Your task to perform on an android device: What is the capital of Germany? Image 0: 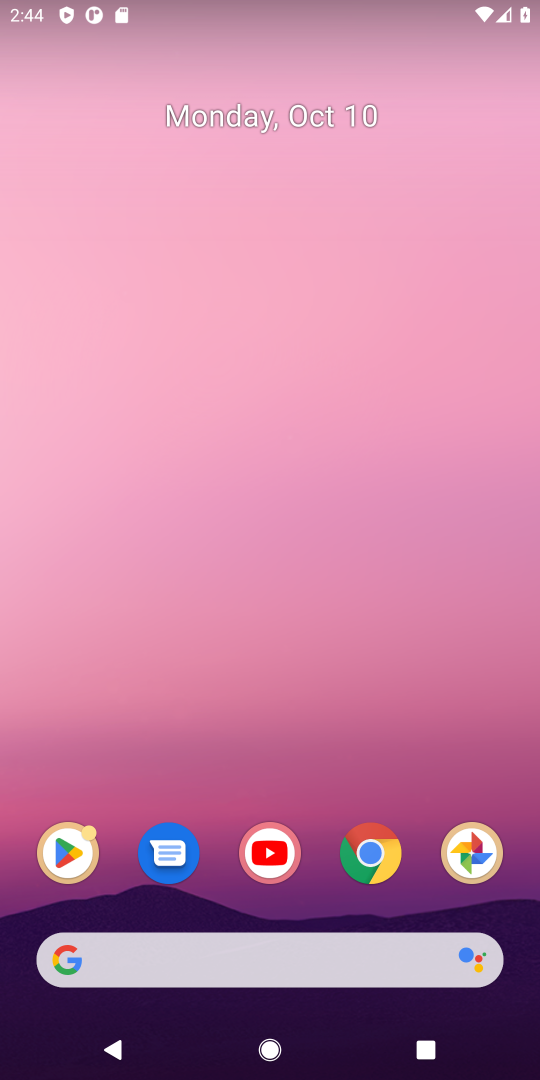
Step 0: click (367, 855)
Your task to perform on an android device: What is the capital of Germany? Image 1: 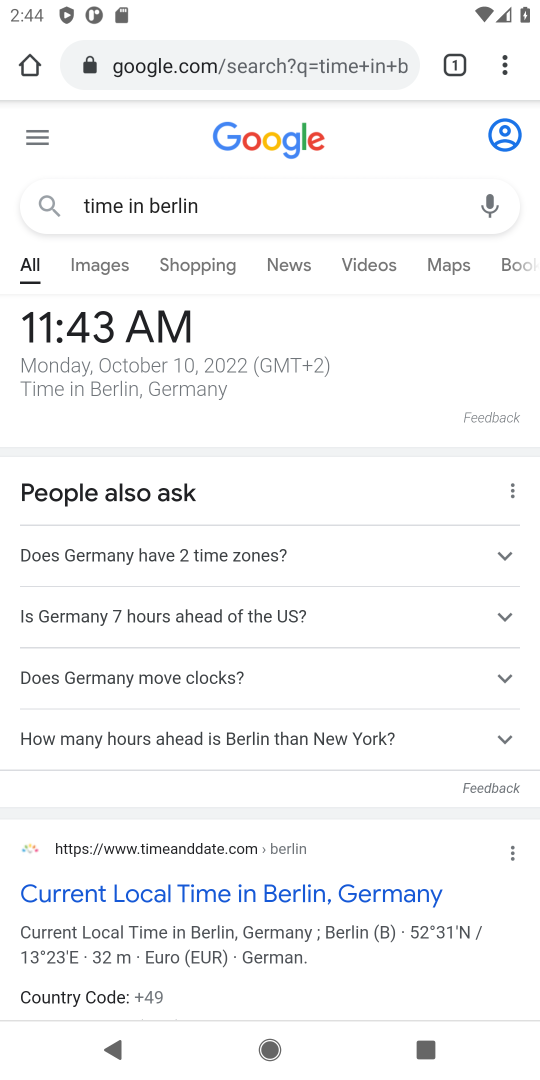
Step 1: click (236, 75)
Your task to perform on an android device: What is the capital of Germany? Image 2: 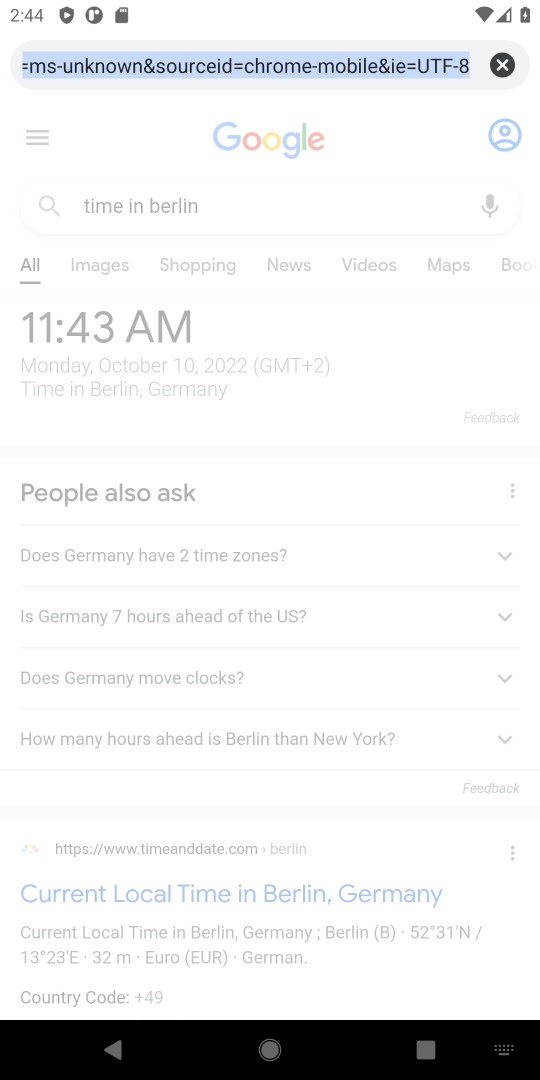
Step 2: type "capital of germany"
Your task to perform on an android device: What is the capital of Germany? Image 3: 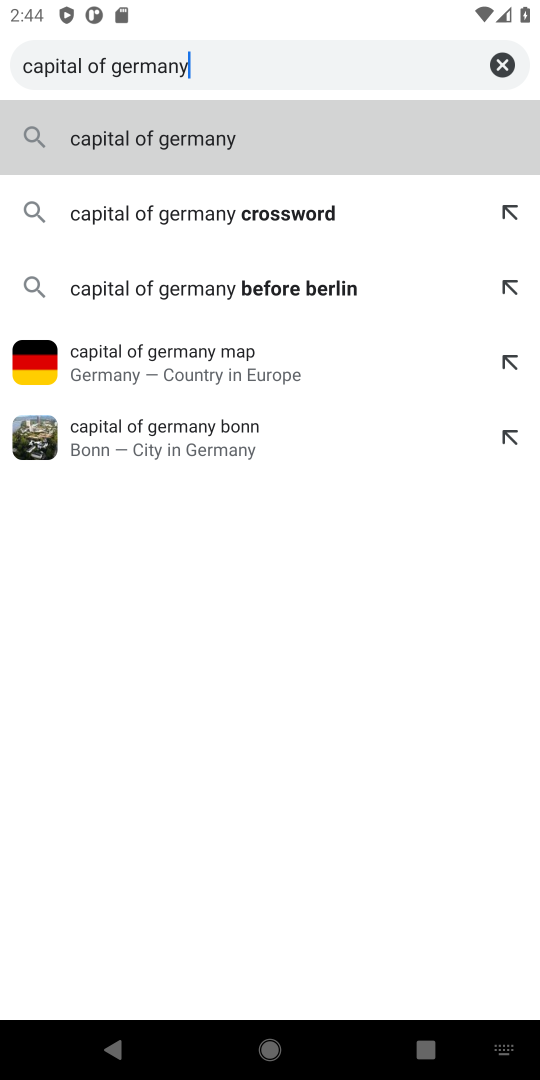
Step 3: click (263, 125)
Your task to perform on an android device: What is the capital of Germany? Image 4: 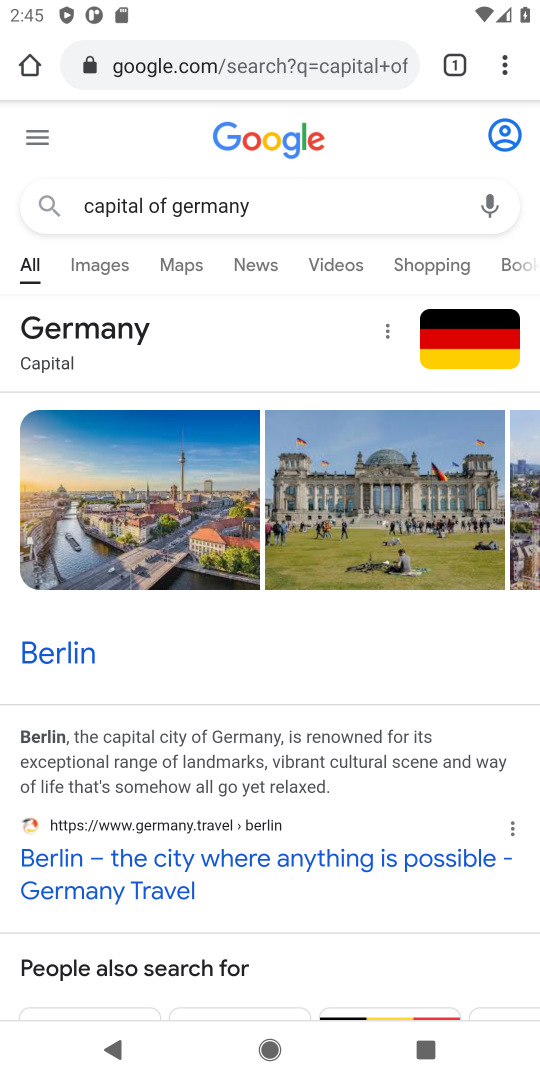
Step 4: task complete